Your task to perform on an android device: Do I have any events today? Image 0: 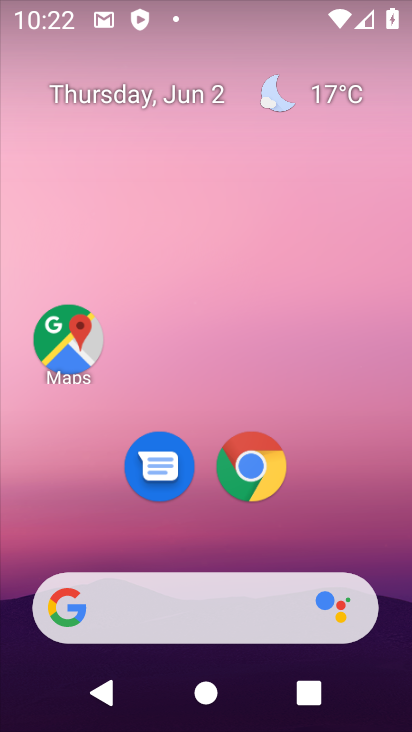
Step 0: press home button
Your task to perform on an android device: Do I have any events today? Image 1: 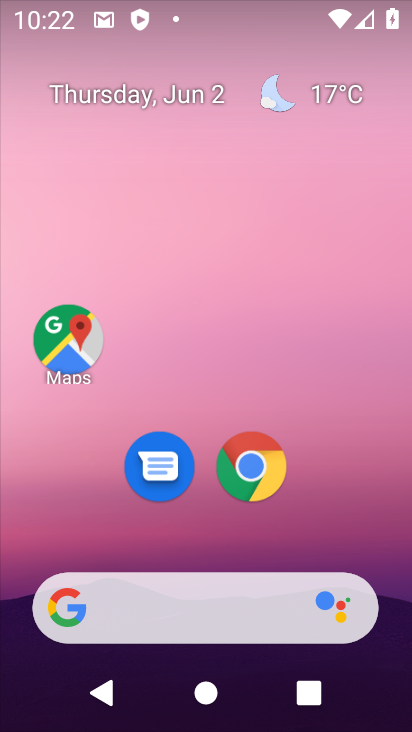
Step 1: drag from (288, 536) to (224, 0)
Your task to perform on an android device: Do I have any events today? Image 2: 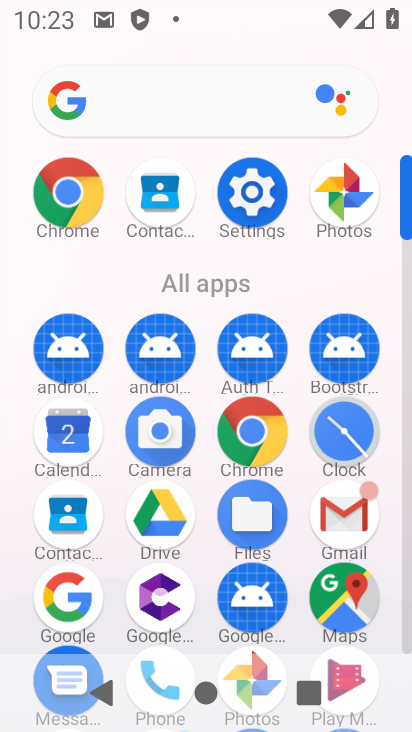
Step 2: click (52, 435)
Your task to perform on an android device: Do I have any events today? Image 3: 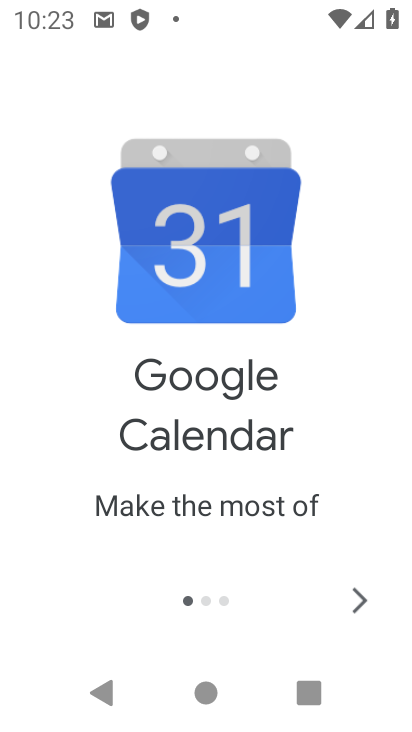
Step 3: click (355, 601)
Your task to perform on an android device: Do I have any events today? Image 4: 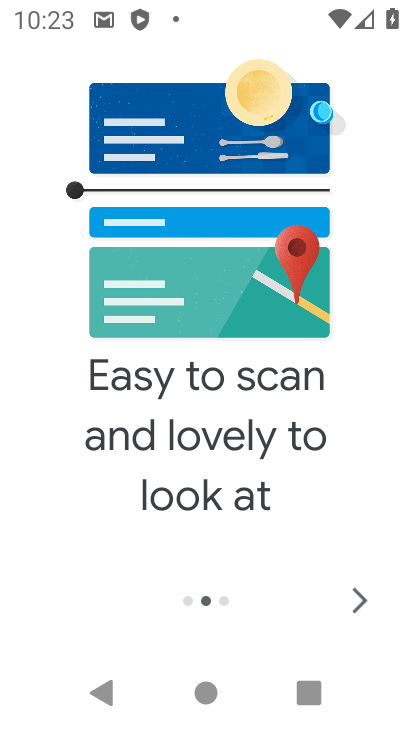
Step 4: click (360, 599)
Your task to perform on an android device: Do I have any events today? Image 5: 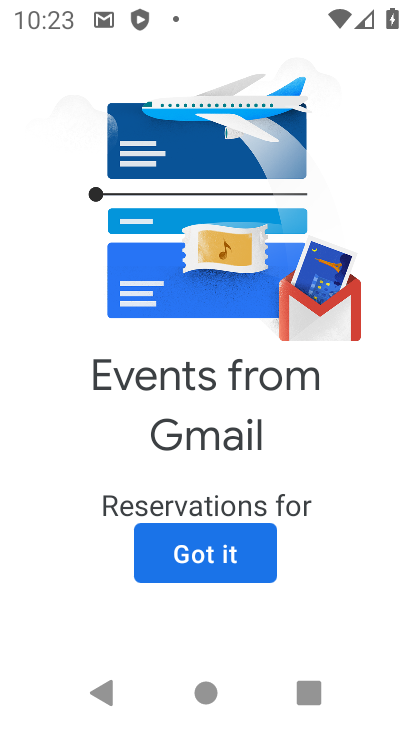
Step 5: click (221, 565)
Your task to perform on an android device: Do I have any events today? Image 6: 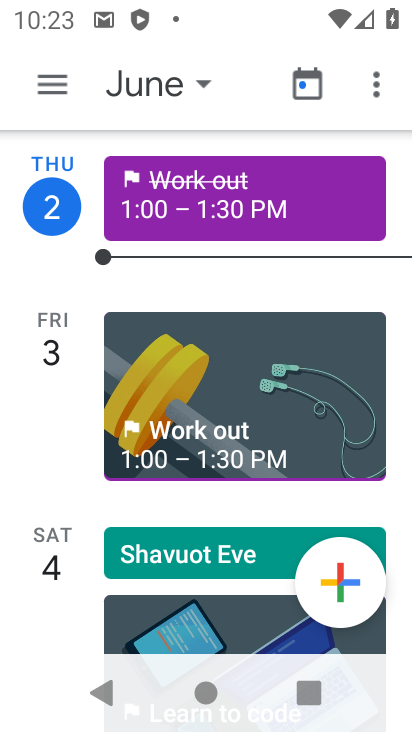
Step 6: task complete